Your task to perform on an android device: turn off improve location accuracy Image 0: 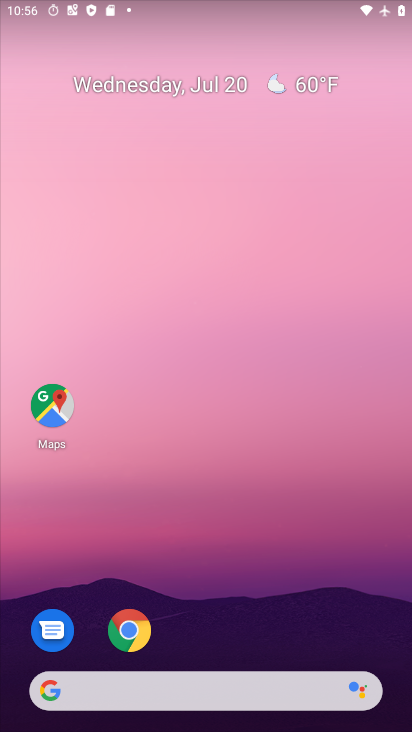
Step 0: drag from (204, 637) to (265, 129)
Your task to perform on an android device: turn off improve location accuracy Image 1: 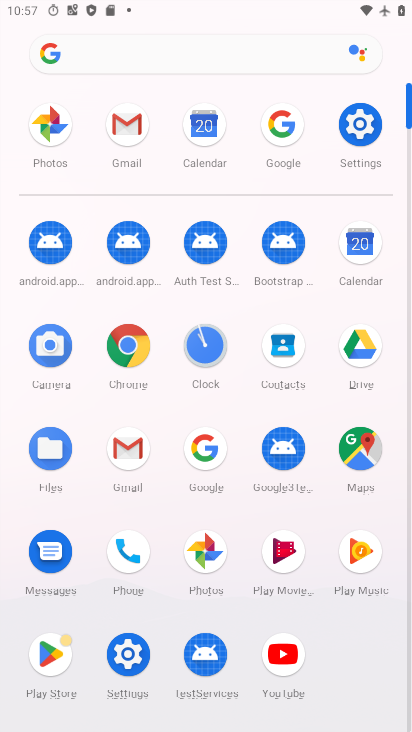
Step 1: click (361, 123)
Your task to perform on an android device: turn off improve location accuracy Image 2: 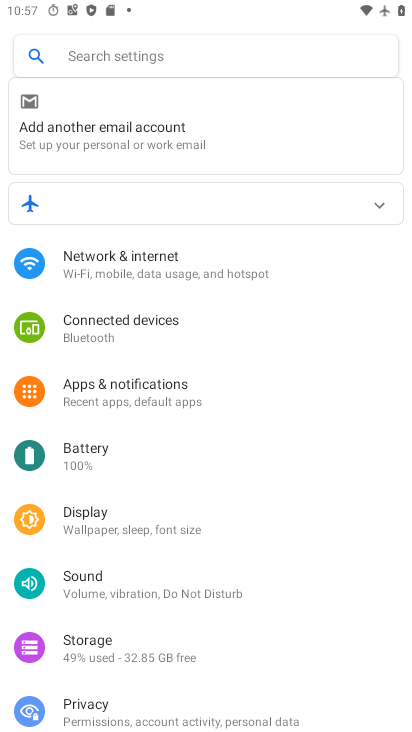
Step 2: drag from (185, 581) to (187, 221)
Your task to perform on an android device: turn off improve location accuracy Image 3: 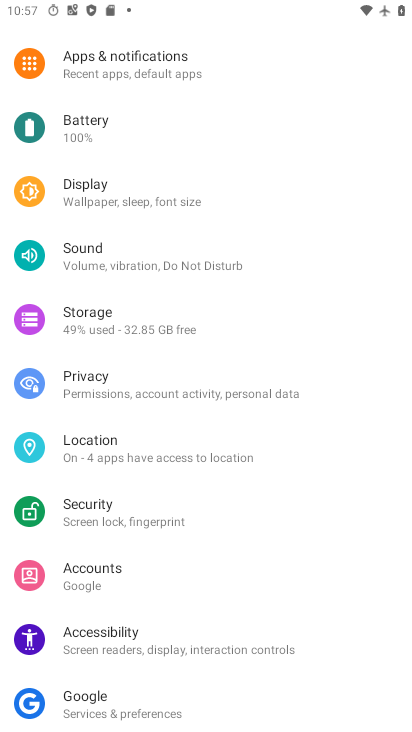
Step 3: click (92, 444)
Your task to perform on an android device: turn off improve location accuracy Image 4: 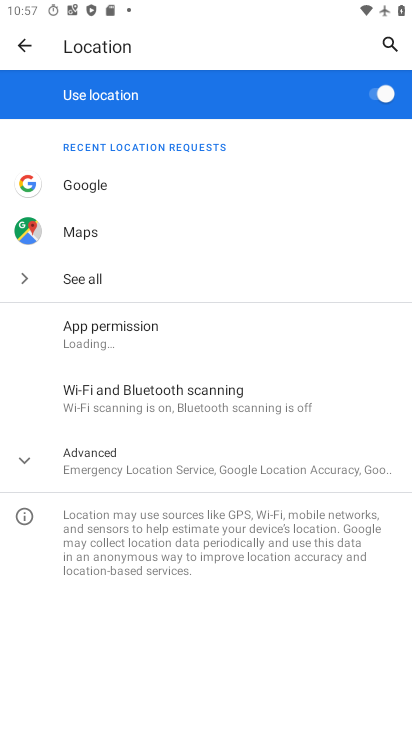
Step 4: click (104, 472)
Your task to perform on an android device: turn off improve location accuracy Image 5: 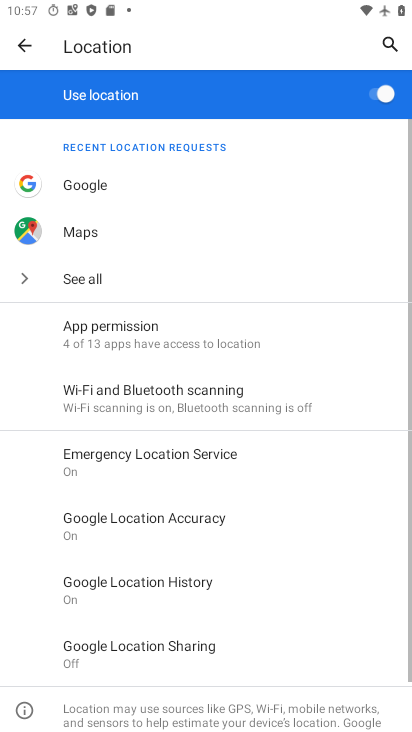
Step 5: click (139, 533)
Your task to perform on an android device: turn off improve location accuracy Image 6: 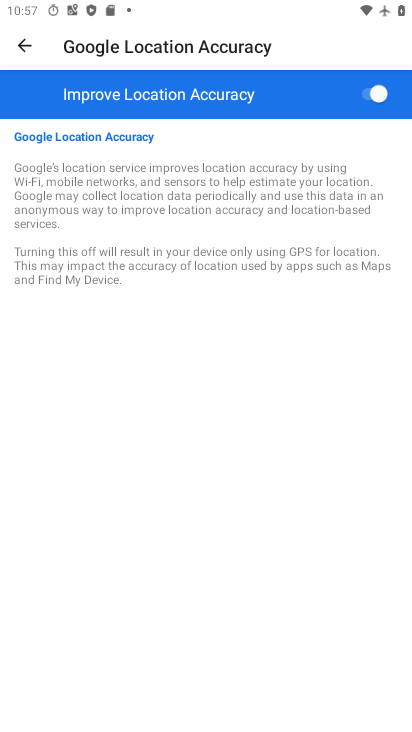
Step 6: click (371, 98)
Your task to perform on an android device: turn off improve location accuracy Image 7: 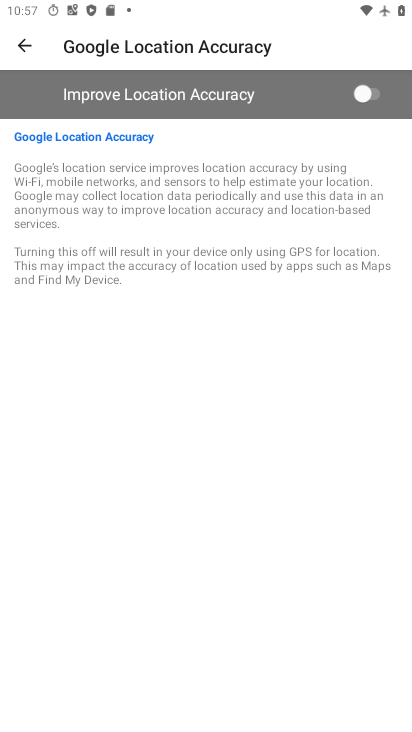
Step 7: task complete